Your task to perform on an android device: turn off sleep mode Image 0: 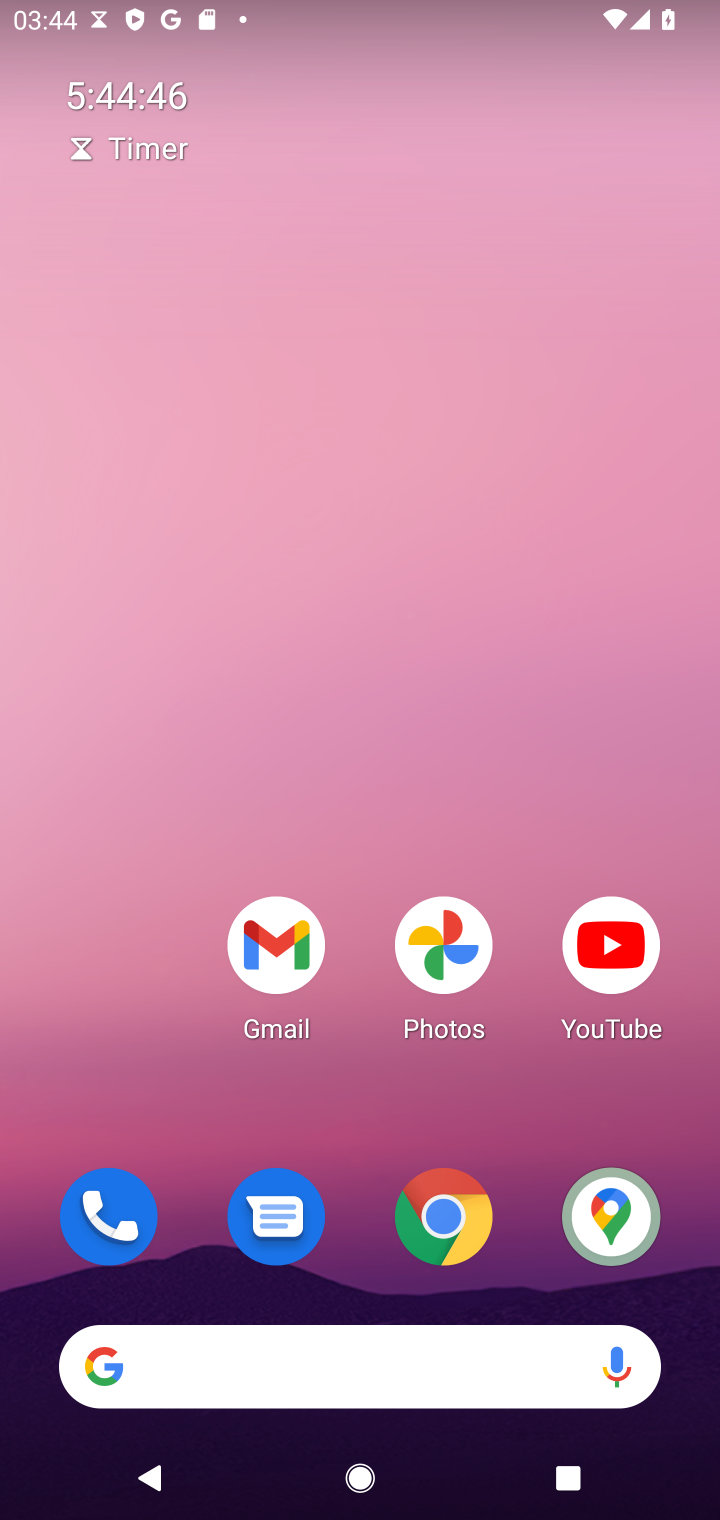
Step 0: drag from (388, 1075) to (388, 126)
Your task to perform on an android device: turn off sleep mode Image 1: 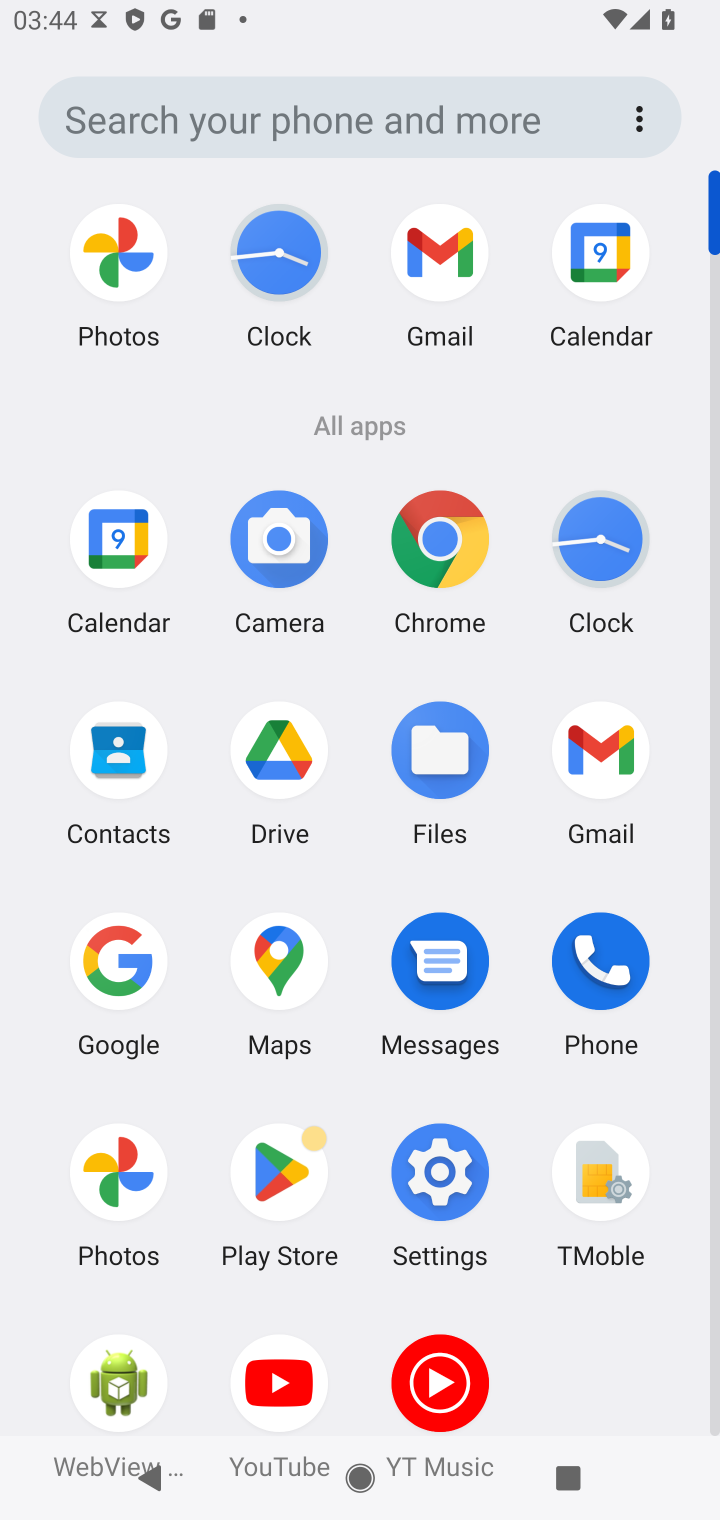
Step 1: click (434, 1204)
Your task to perform on an android device: turn off sleep mode Image 2: 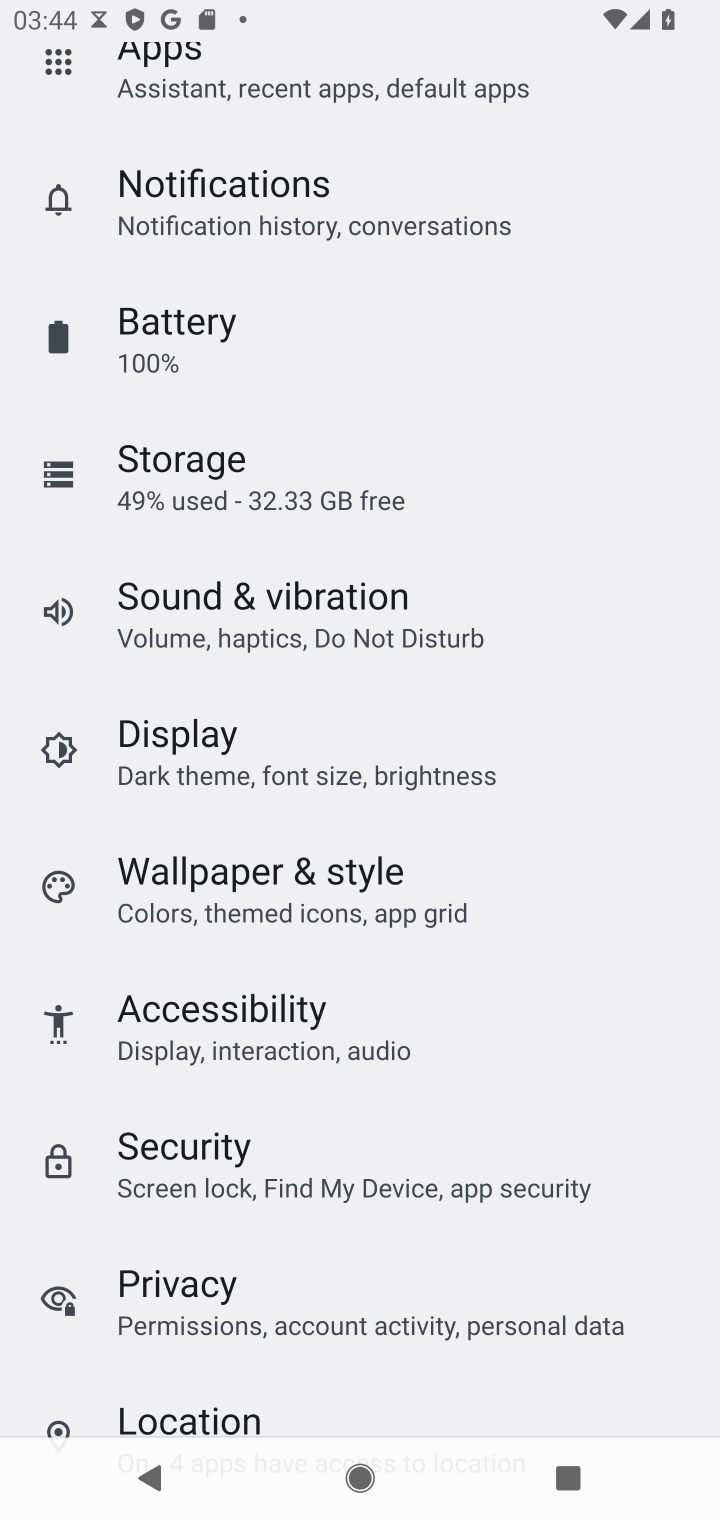
Step 2: click (374, 752)
Your task to perform on an android device: turn off sleep mode Image 3: 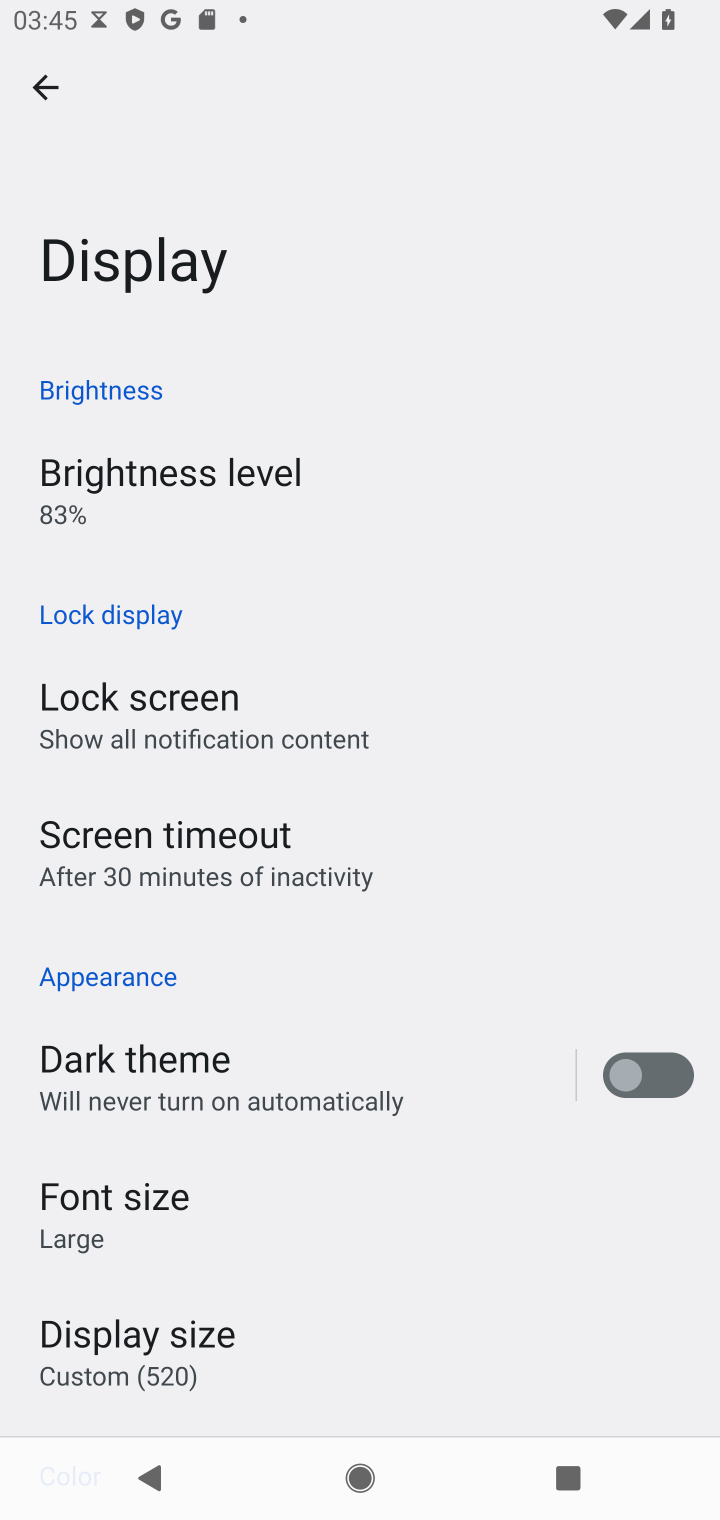
Step 3: task complete